Your task to perform on an android device: add a contact Image 0: 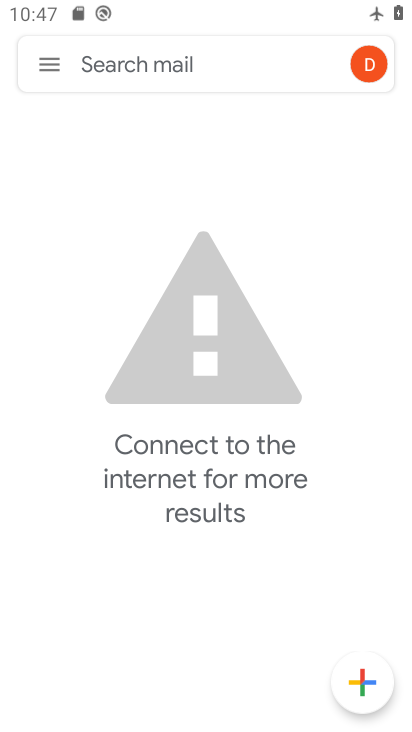
Step 0: press home button
Your task to perform on an android device: add a contact Image 1: 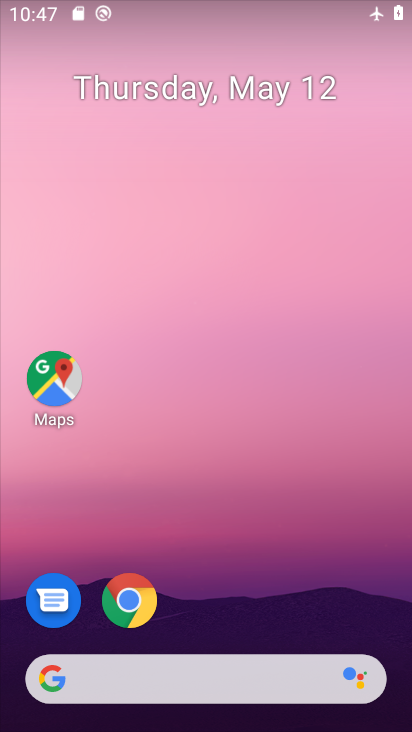
Step 1: drag from (167, 479) to (89, 177)
Your task to perform on an android device: add a contact Image 2: 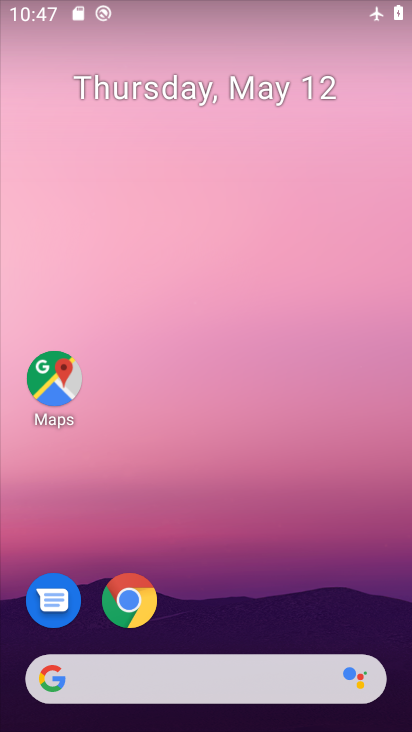
Step 2: drag from (218, 597) to (70, 34)
Your task to perform on an android device: add a contact Image 3: 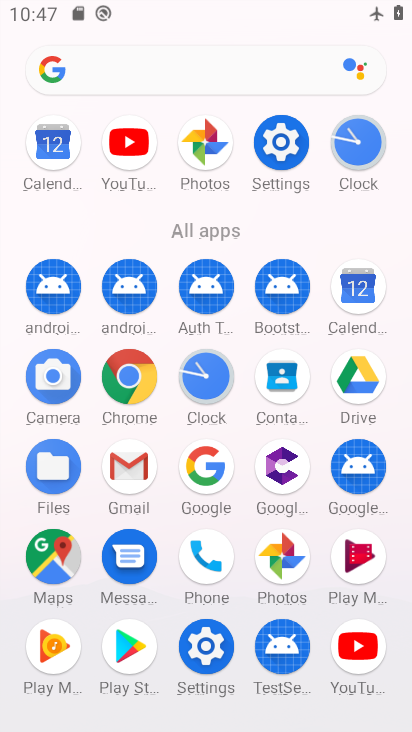
Step 3: click (285, 373)
Your task to perform on an android device: add a contact Image 4: 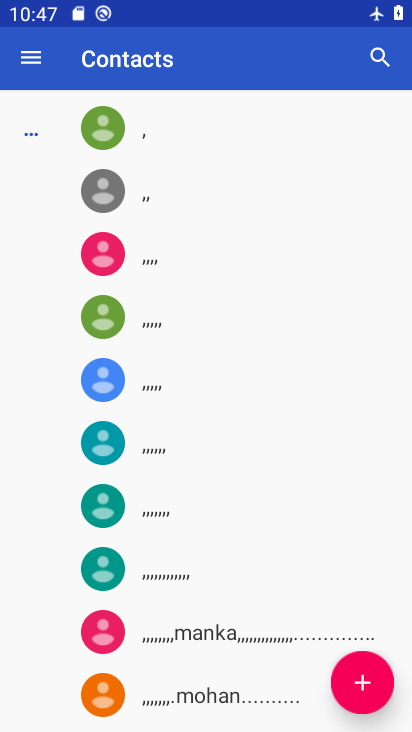
Step 4: click (362, 677)
Your task to perform on an android device: add a contact Image 5: 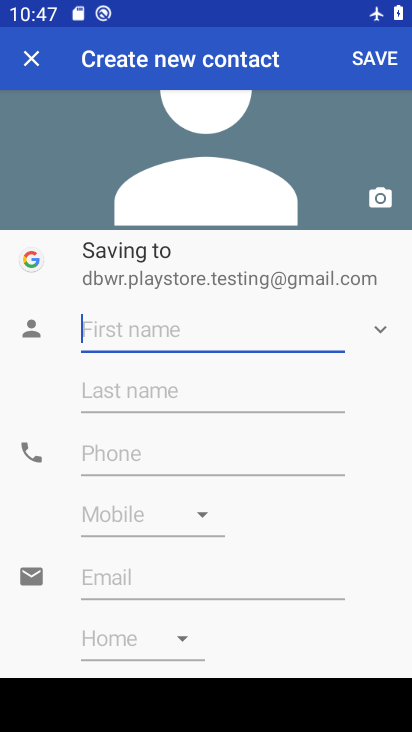
Step 5: click (160, 340)
Your task to perform on an android device: add a contact Image 6: 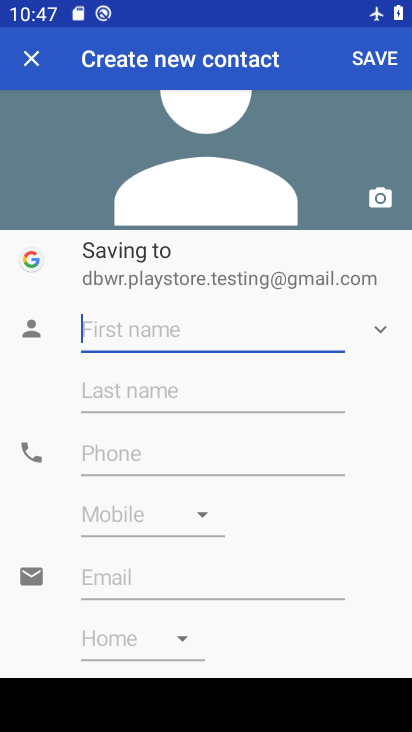
Step 6: type "flora"
Your task to perform on an android device: add a contact Image 7: 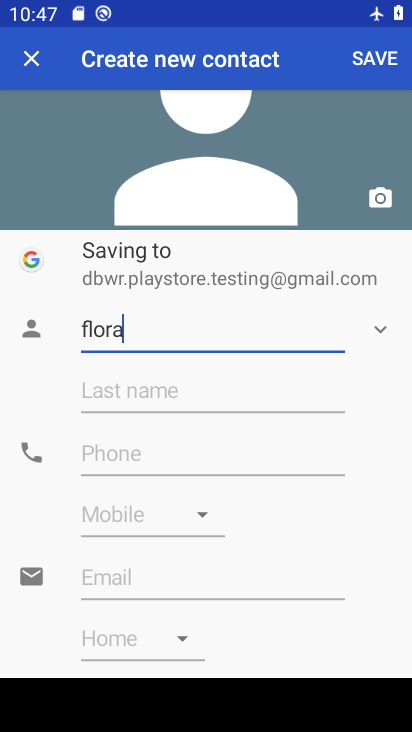
Step 7: click (97, 465)
Your task to perform on an android device: add a contact Image 8: 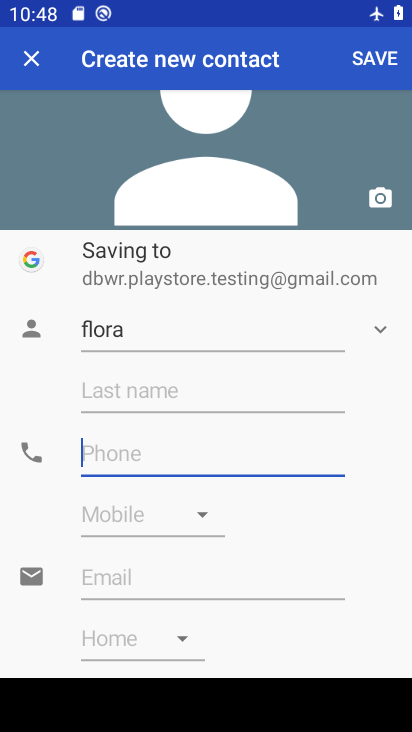
Step 8: type "7768769635"
Your task to perform on an android device: add a contact Image 9: 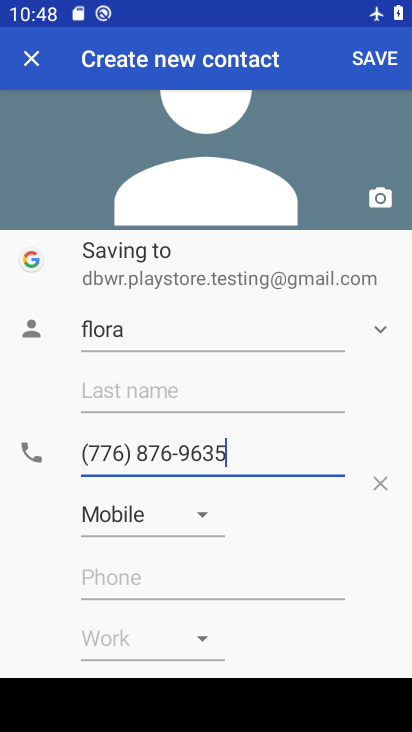
Step 9: click (380, 66)
Your task to perform on an android device: add a contact Image 10: 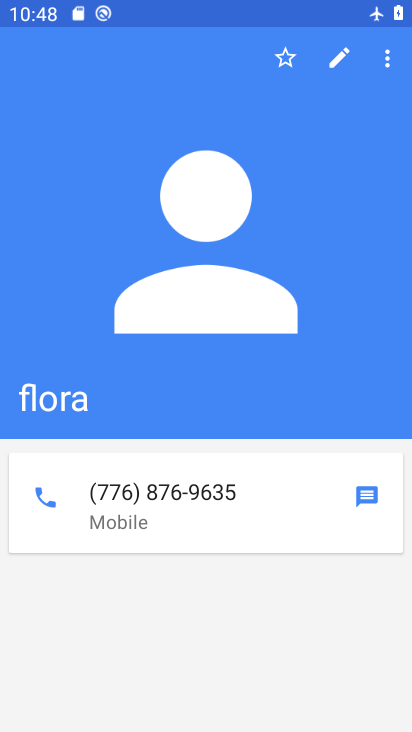
Step 10: task complete